Your task to perform on an android device: turn vacation reply on in the gmail app Image 0: 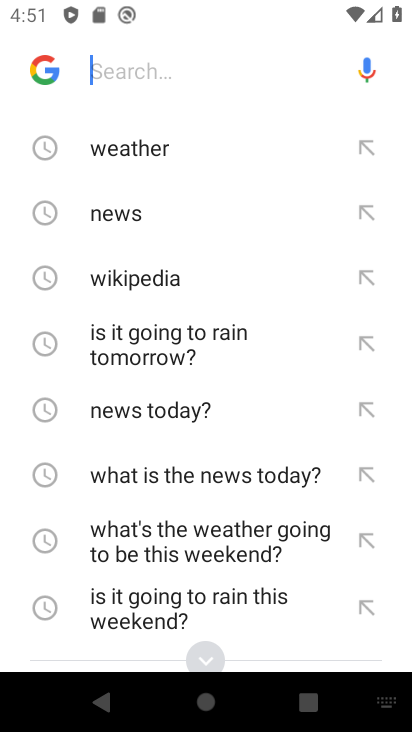
Step 0: press back button
Your task to perform on an android device: turn vacation reply on in the gmail app Image 1: 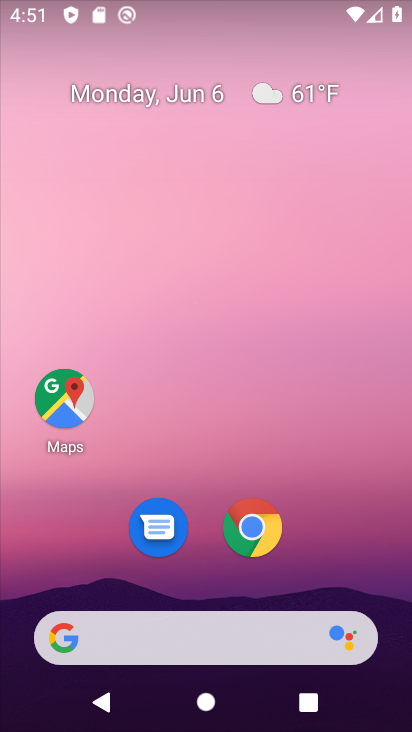
Step 1: drag from (387, 716) to (303, 113)
Your task to perform on an android device: turn vacation reply on in the gmail app Image 2: 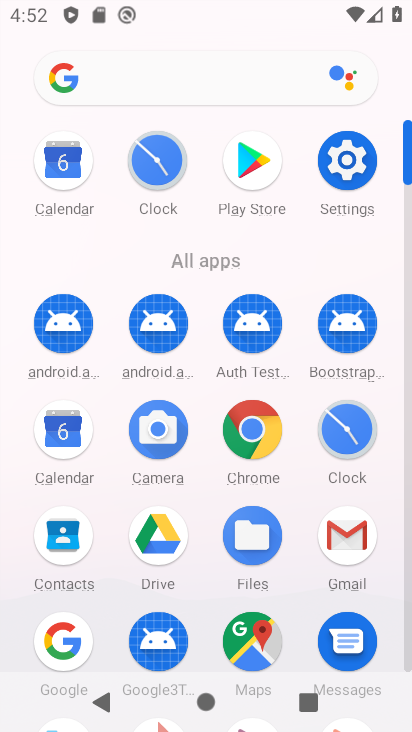
Step 2: click (344, 544)
Your task to perform on an android device: turn vacation reply on in the gmail app Image 3: 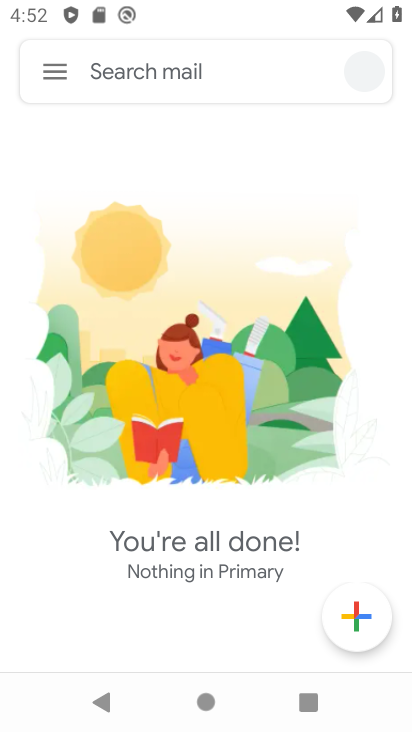
Step 3: click (58, 61)
Your task to perform on an android device: turn vacation reply on in the gmail app Image 4: 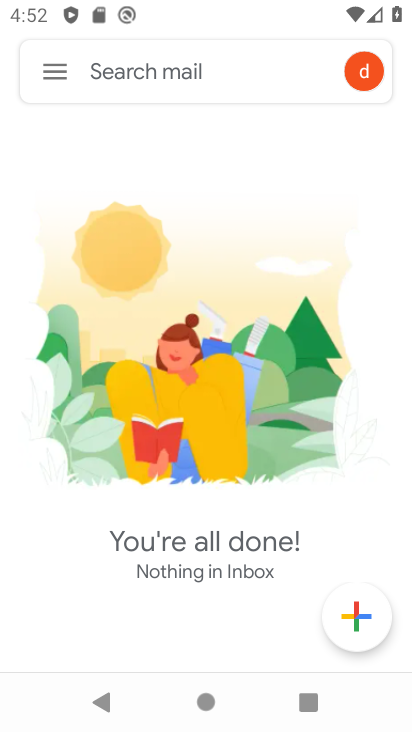
Step 4: click (50, 66)
Your task to perform on an android device: turn vacation reply on in the gmail app Image 5: 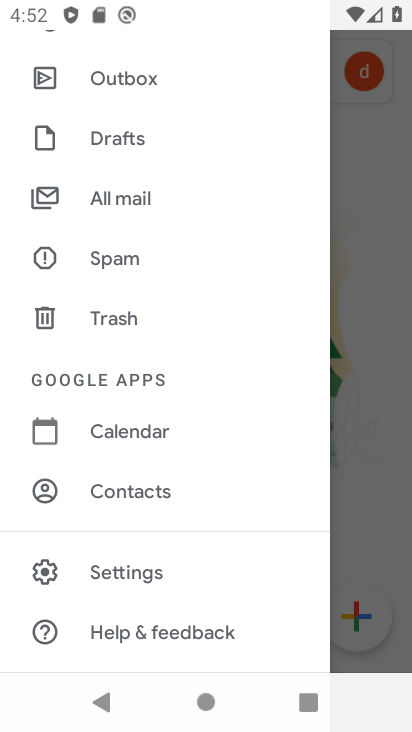
Step 5: click (115, 570)
Your task to perform on an android device: turn vacation reply on in the gmail app Image 6: 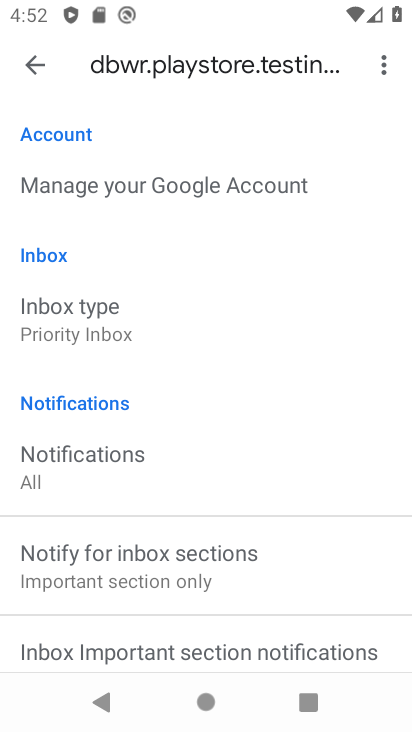
Step 6: drag from (271, 591) to (254, 318)
Your task to perform on an android device: turn vacation reply on in the gmail app Image 7: 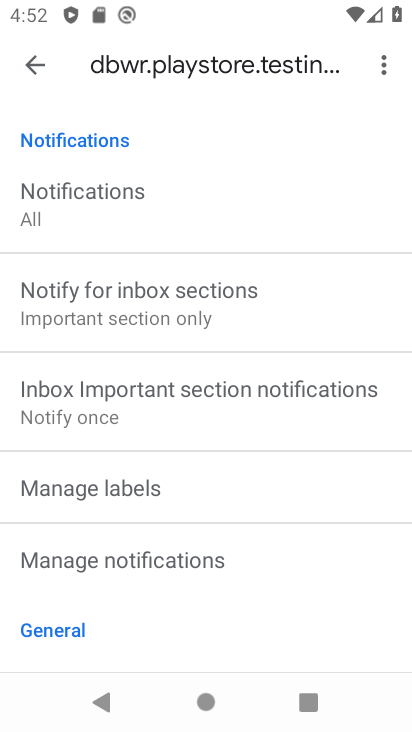
Step 7: drag from (253, 196) to (270, 479)
Your task to perform on an android device: turn vacation reply on in the gmail app Image 8: 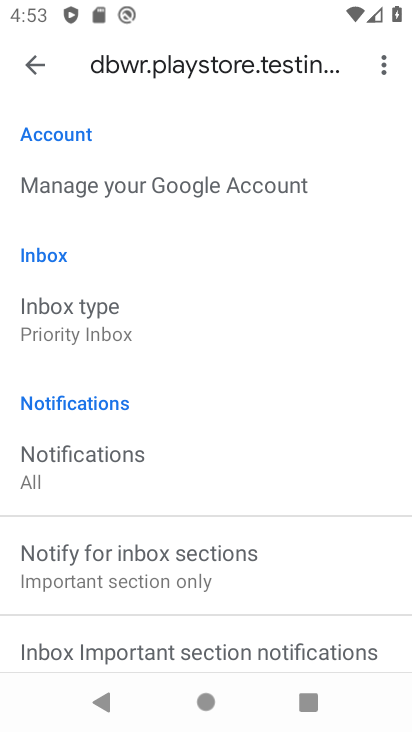
Step 8: drag from (311, 609) to (305, 236)
Your task to perform on an android device: turn vacation reply on in the gmail app Image 9: 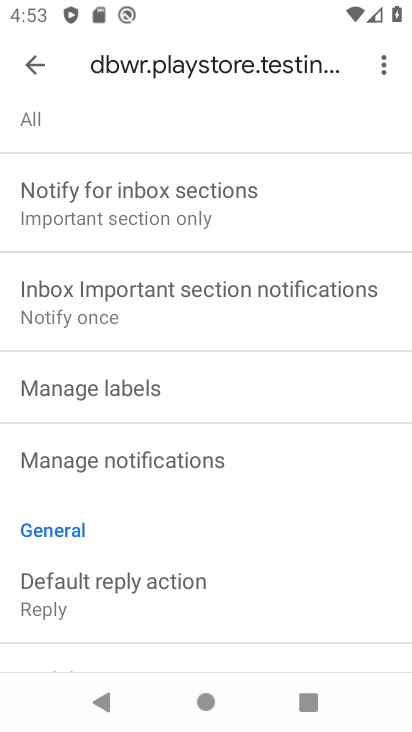
Step 9: drag from (316, 596) to (310, 256)
Your task to perform on an android device: turn vacation reply on in the gmail app Image 10: 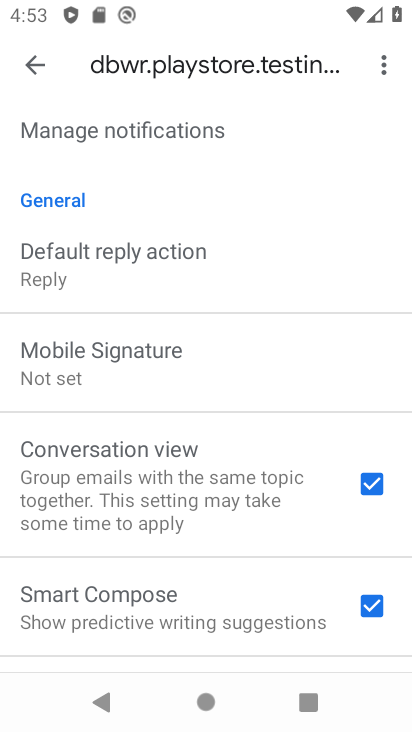
Step 10: drag from (318, 613) to (299, 297)
Your task to perform on an android device: turn vacation reply on in the gmail app Image 11: 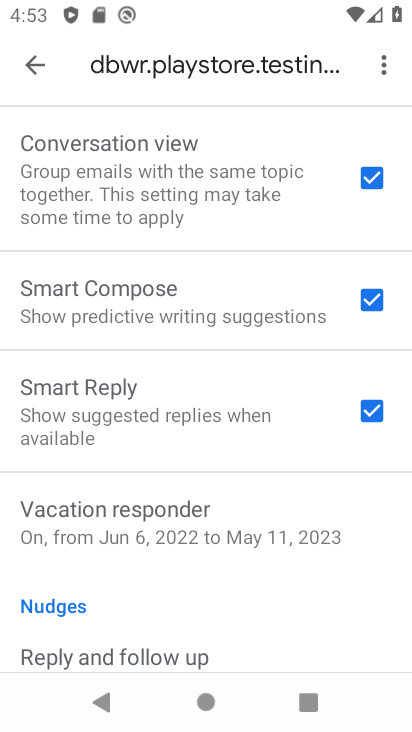
Step 11: drag from (286, 603) to (270, 313)
Your task to perform on an android device: turn vacation reply on in the gmail app Image 12: 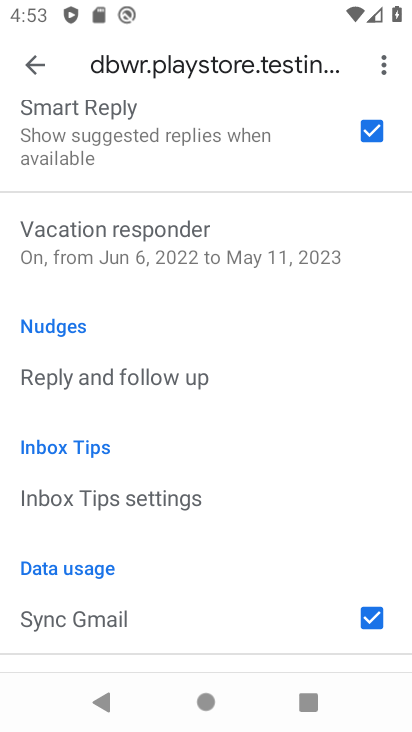
Step 12: drag from (287, 186) to (289, 447)
Your task to perform on an android device: turn vacation reply on in the gmail app Image 13: 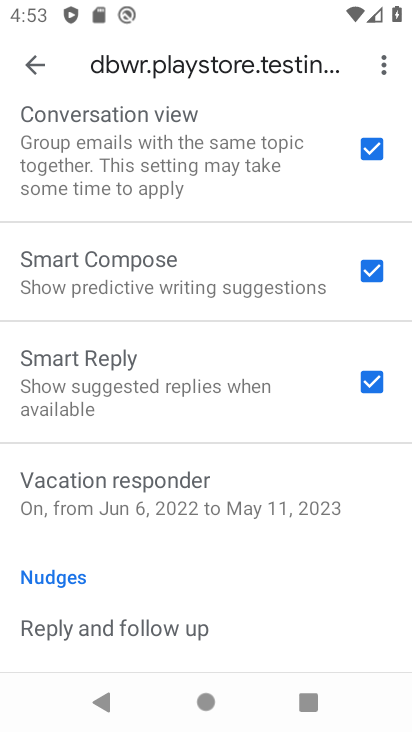
Step 13: click (116, 486)
Your task to perform on an android device: turn vacation reply on in the gmail app Image 14: 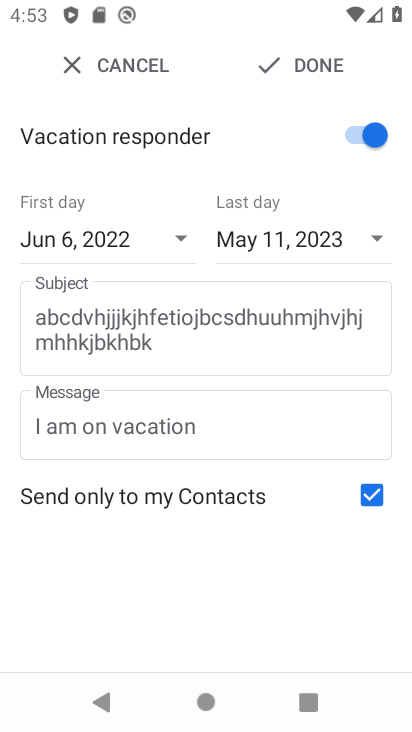
Step 14: task complete